Your task to perform on an android device: toggle translation in the chrome app Image 0: 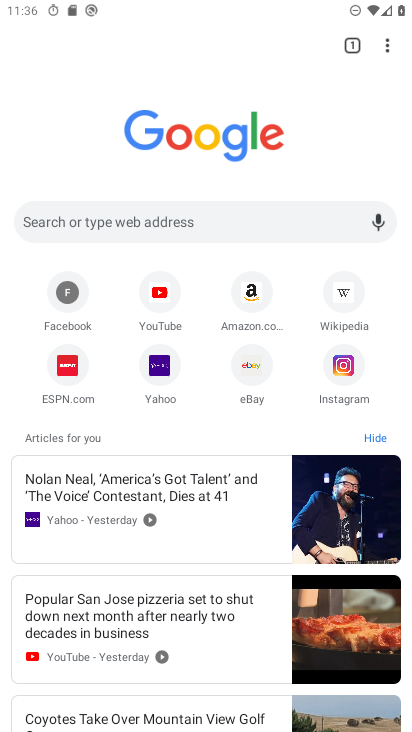
Step 0: press home button
Your task to perform on an android device: toggle translation in the chrome app Image 1: 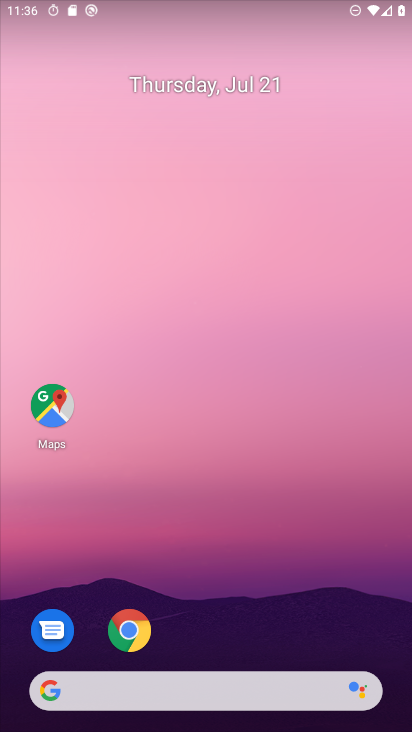
Step 1: click (119, 621)
Your task to perform on an android device: toggle translation in the chrome app Image 2: 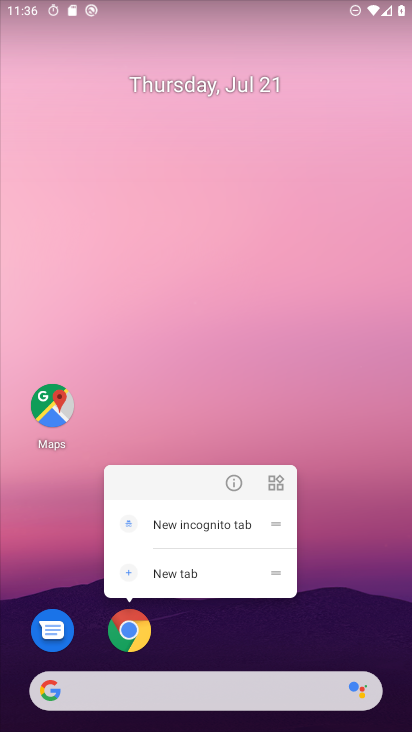
Step 2: click (113, 627)
Your task to perform on an android device: toggle translation in the chrome app Image 3: 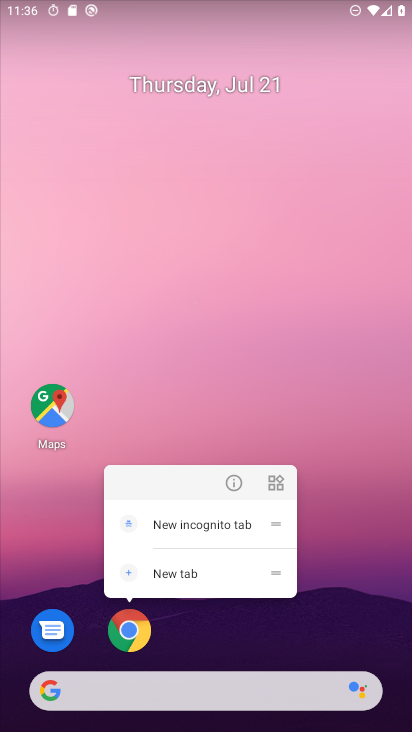
Step 3: click (143, 627)
Your task to perform on an android device: toggle translation in the chrome app Image 4: 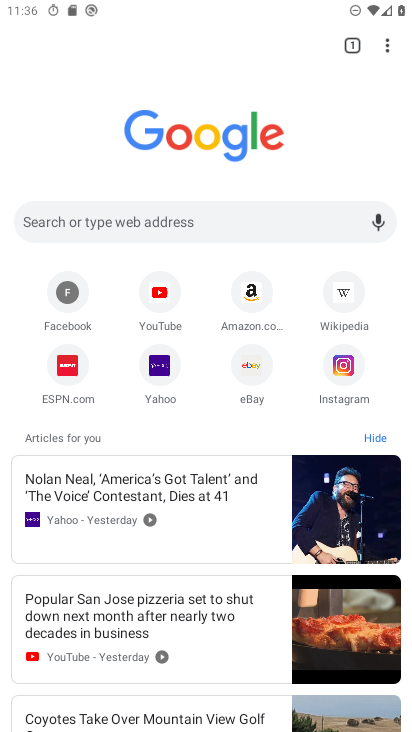
Step 4: click (383, 47)
Your task to perform on an android device: toggle translation in the chrome app Image 5: 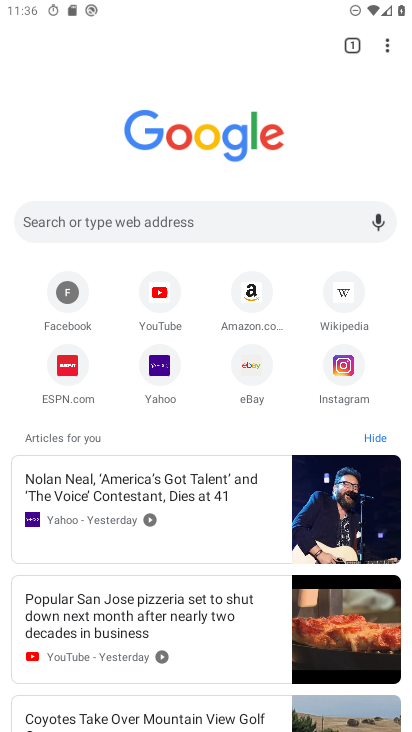
Step 5: drag from (383, 47) to (231, 428)
Your task to perform on an android device: toggle translation in the chrome app Image 6: 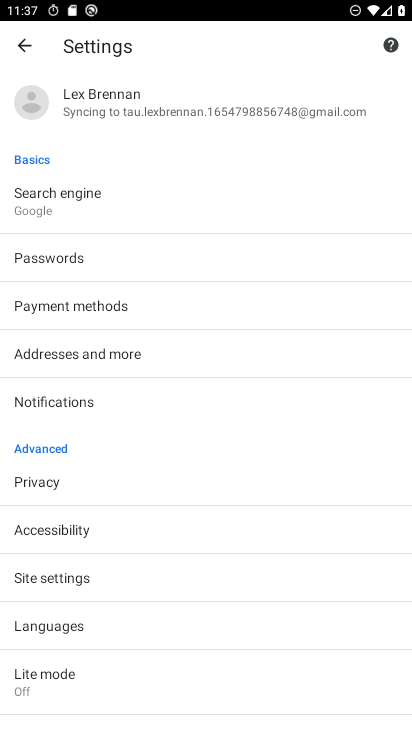
Step 6: click (42, 622)
Your task to perform on an android device: toggle translation in the chrome app Image 7: 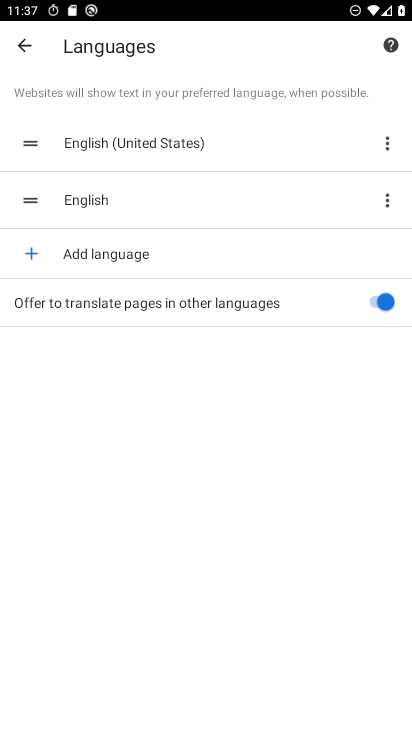
Step 7: click (386, 298)
Your task to perform on an android device: toggle translation in the chrome app Image 8: 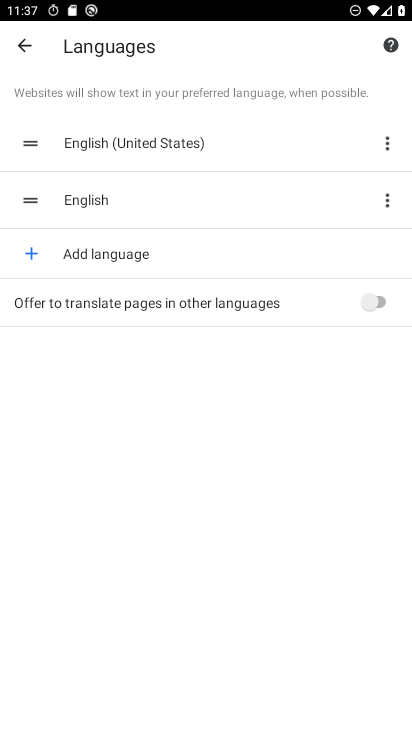
Step 8: task complete